Your task to perform on an android device: turn off notifications in google photos Image 0: 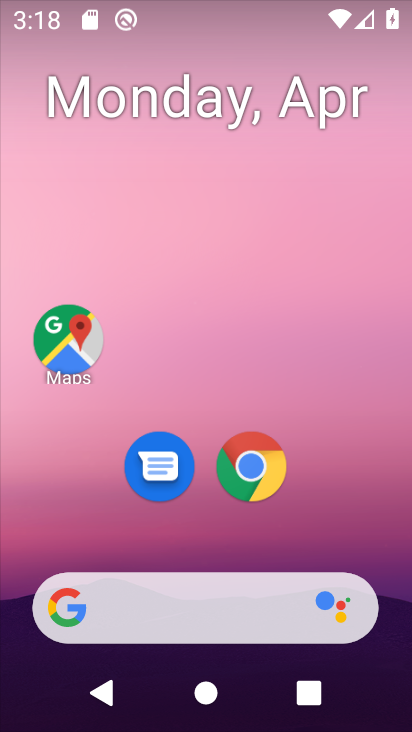
Step 0: drag from (275, 519) to (272, 243)
Your task to perform on an android device: turn off notifications in google photos Image 1: 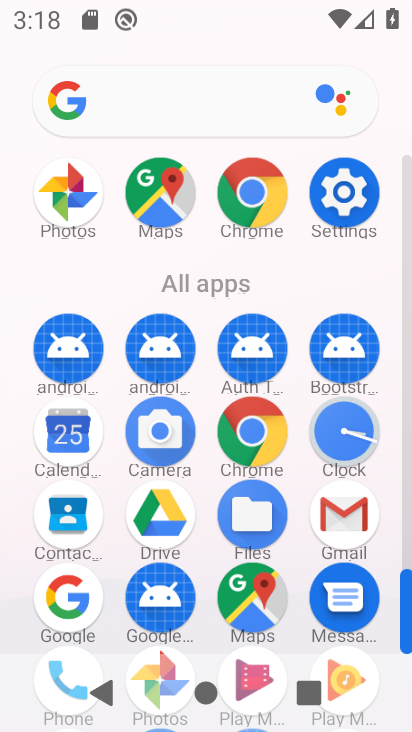
Step 1: drag from (203, 300) to (199, 58)
Your task to perform on an android device: turn off notifications in google photos Image 2: 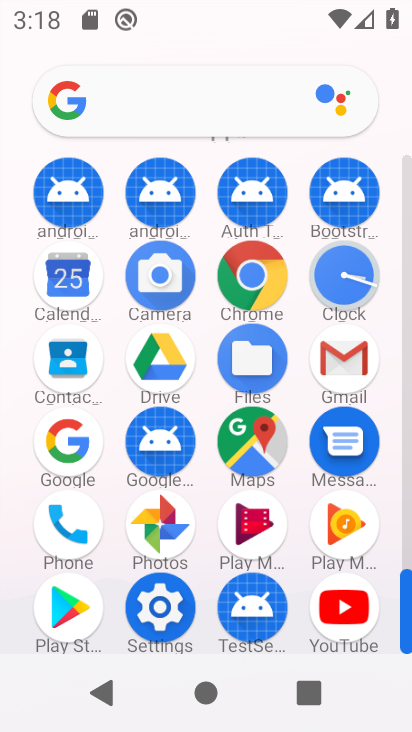
Step 2: click (174, 532)
Your task to perform on an android device: turn off notifications in google photos Image 3: 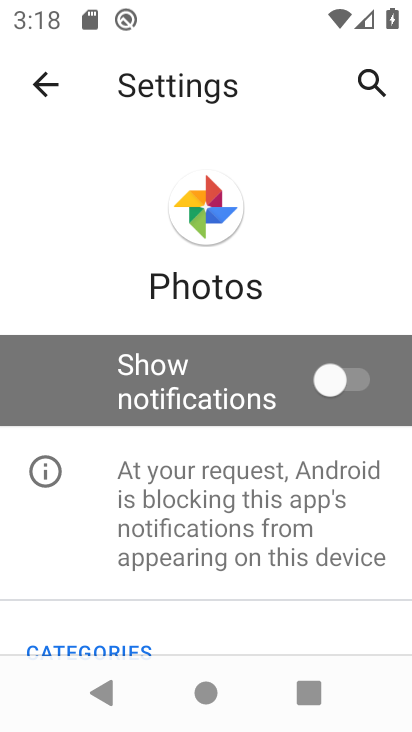
Step 3: task complete